Your task to perform on an android device: Do I have any events tomorrow? Image 0: 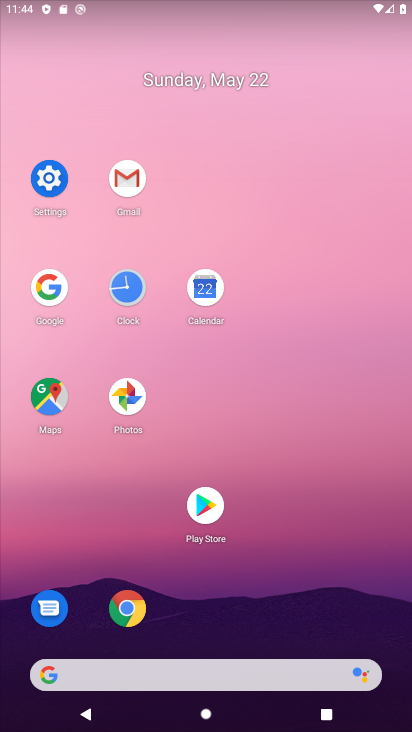
Step 0: click (206, 296)
Your task to perform on an android device: Do I have any events tomorrow? Image 1: 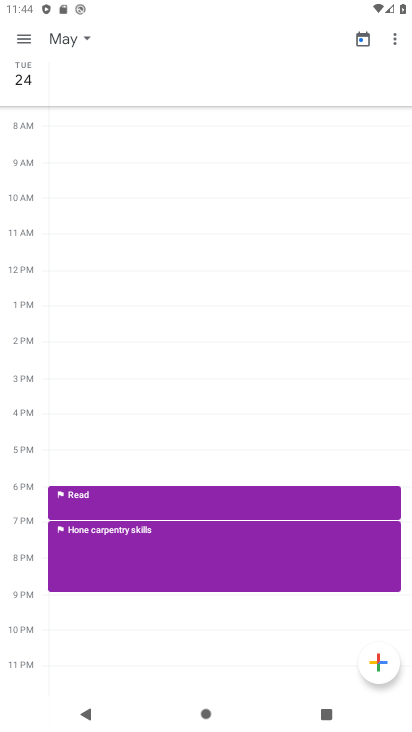
Step 1: task complete